Your task to perform on an android device: Find coffee shops on Maps Image 0: 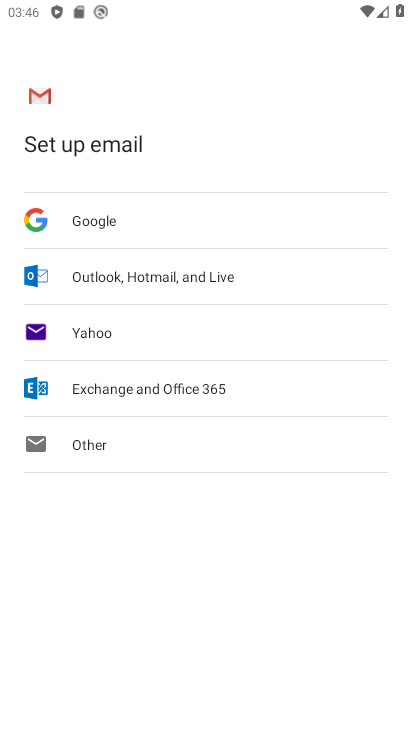
Step 0: press home button
Your task to perform on an android device: Find coffee shops on Maps Image 1: 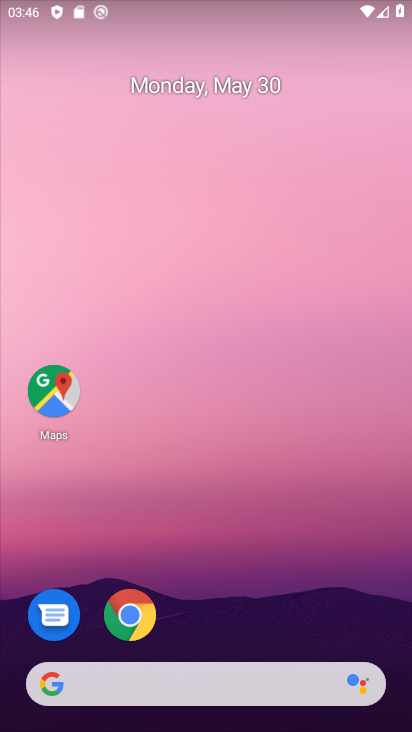
Step 1: click (56, 394)
Your task to perform on an android device: Find coffee shops on Maps Image 2: 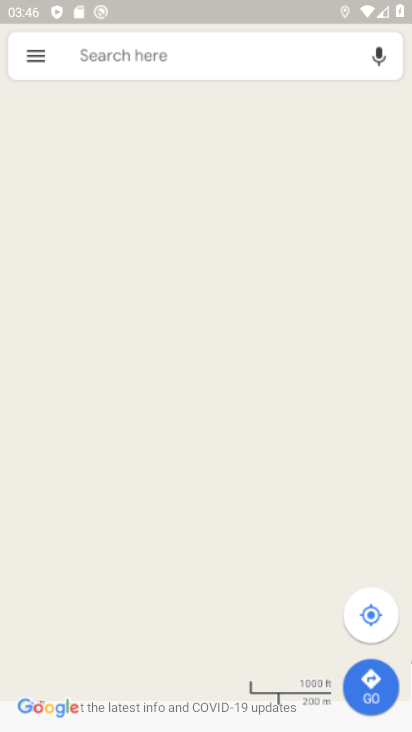
Step 2: click (127, 70)
Your task to perform on an android device: Find coffee shops on Maps Image 3: 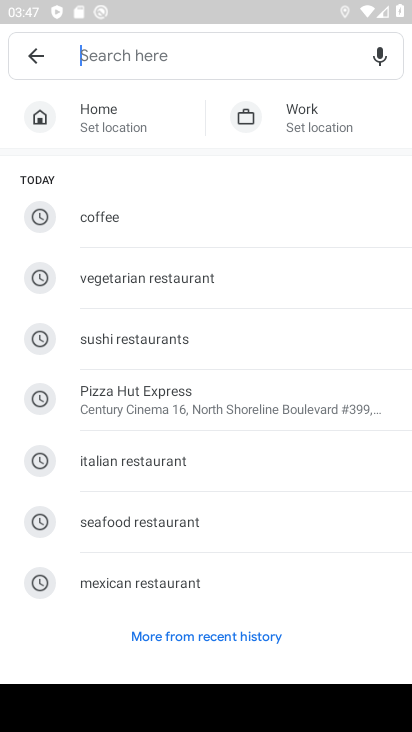
Step 3: type "coffee shops"
Your task to perform on an android device: Find coffee shops on Maps Image 4: 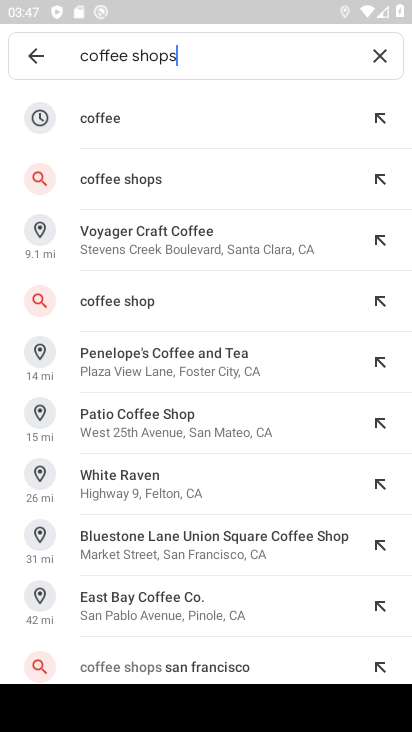
Step 4: click (107, 182)
Your task to perform on an android device: Find coffee shops on Maps Image 5: 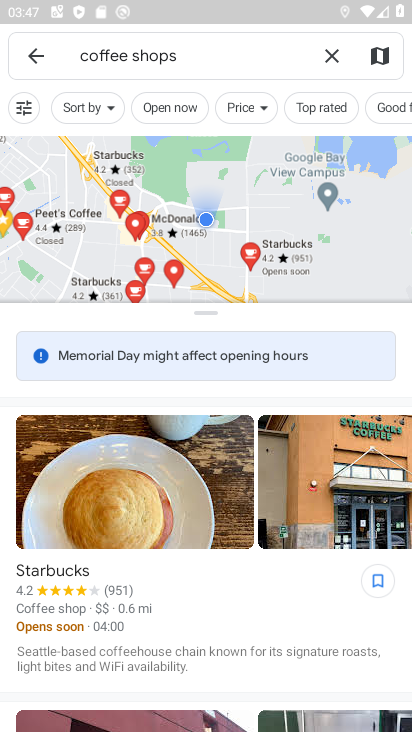
Step 5: task complete